Your task to perform on an android device: Open Chrome and go to settings Image 0: 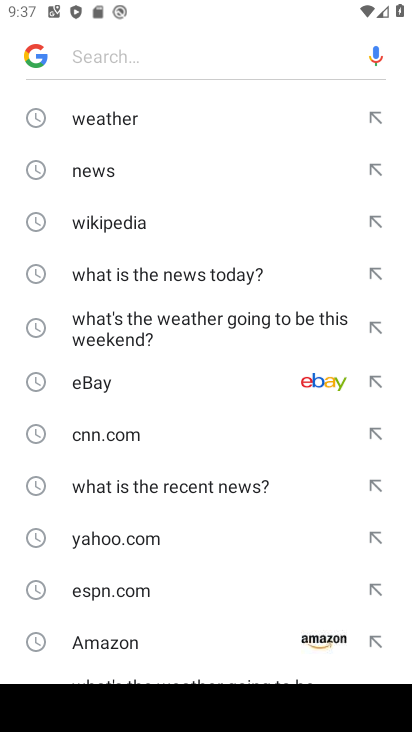
Step 0: press home button
Your task to perform on an android device: Open Chrome and go to settings Image 1: 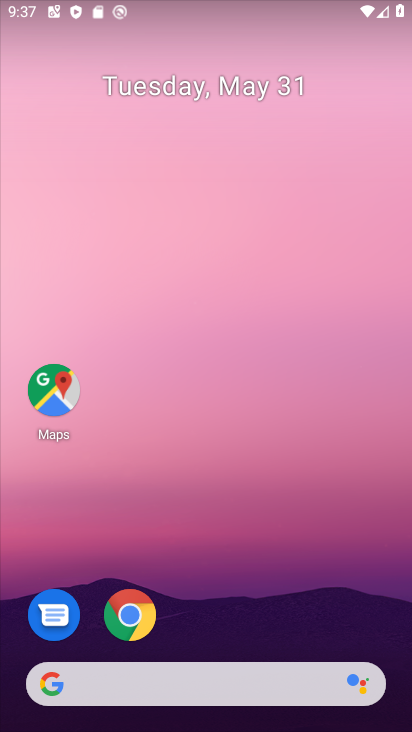
Step 1: click (121, 615)
Your task to perform on an android device: Open Chrome and go to settings Image 2: 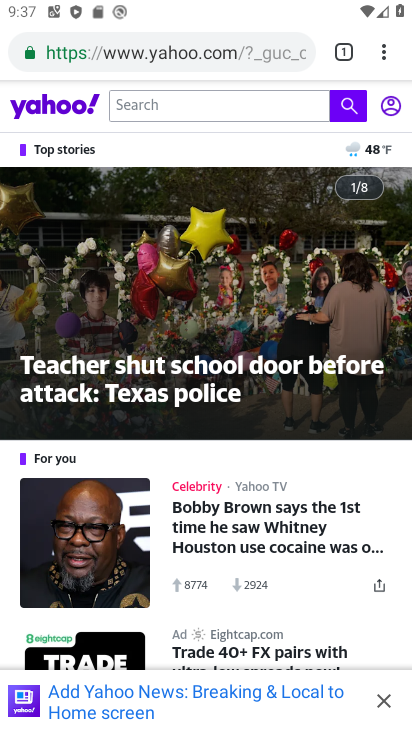
Step 2: click (385, 53)
Your task to perform on an android device: Open Chrome and go to settings Image 3: 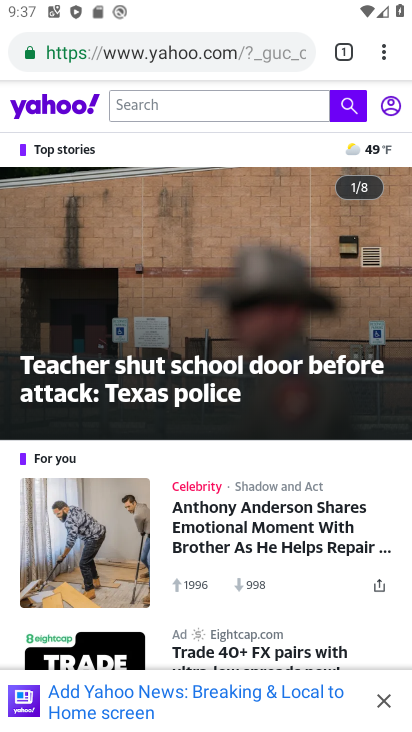
Step 3: click (385, 54)
Your task to perform on an android device: Open Chrome and go to settings Image 4: 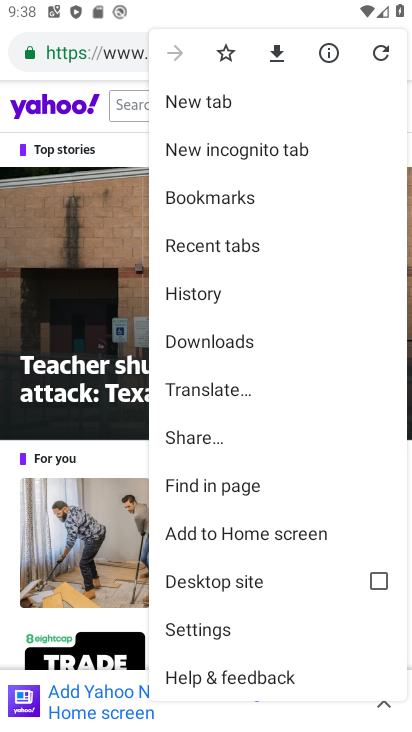
Step 4: click (248, 621)
Your task to perform on an android device: Open Chrome and go to settings Image 5: 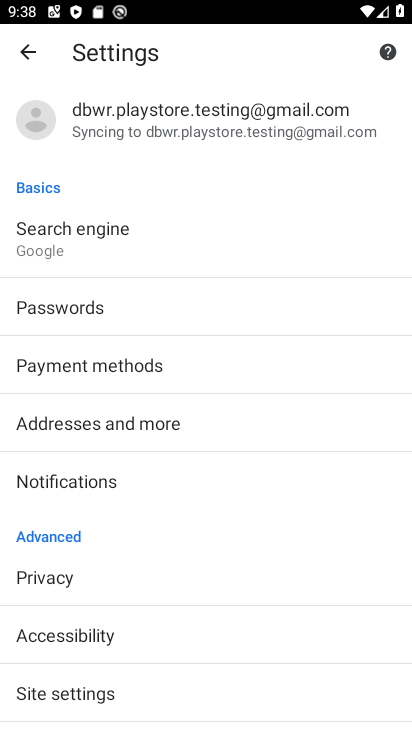
Step 5: task complete